Your task to perform on an android device: Open Google Maps and go to "Timeline" Image 0: 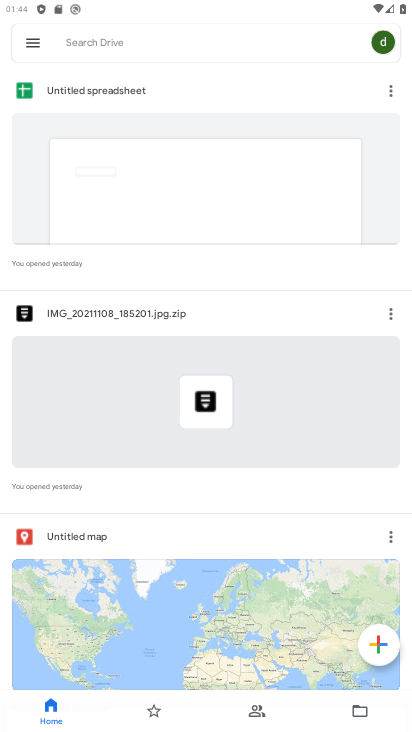
Step 0: press home button
Your task to perform on an android device: Open Google Maps and go to "Timeline" Image 1: 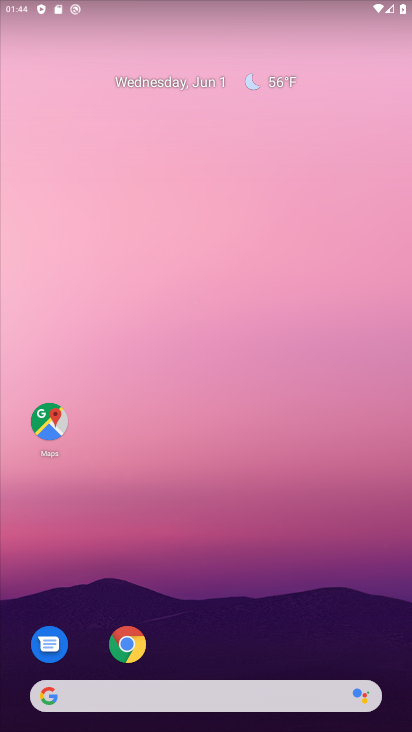
Step 1: click (39, 429)
Your task to perform on an android device: Open Google Maps and go to "Timeline" Image 2: 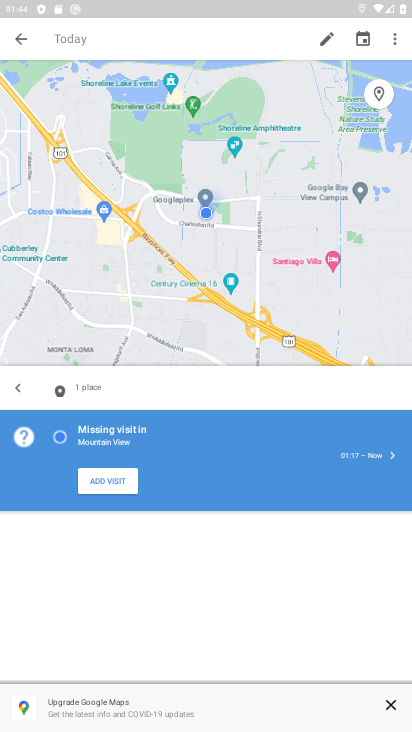
Step 2: click (16, 39)
Your task to perform on an android device: Open Google Maps and go to "Timeline" Image 3: 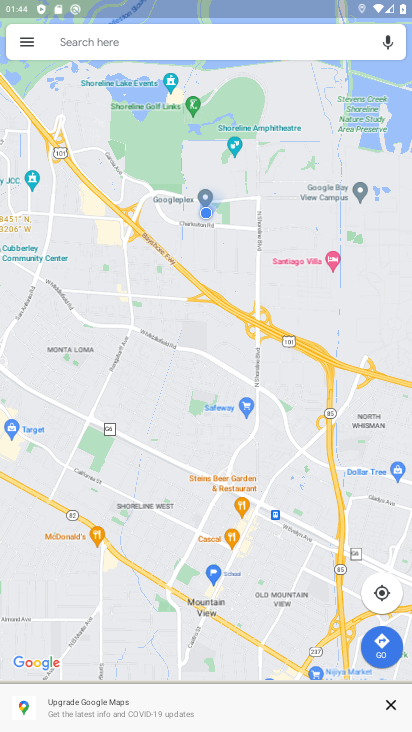
Step 3: click (30, 43)
Your task to perform on an android device: Open Google Maps and go to "Timeline" Image 4: 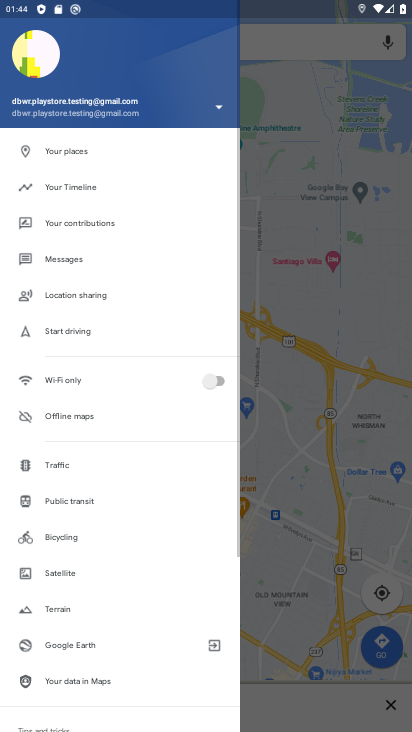
Step 4: click (69, 193)
Your task to perform on an android device: Open Google Maps and go to "Timeline" Image 5: 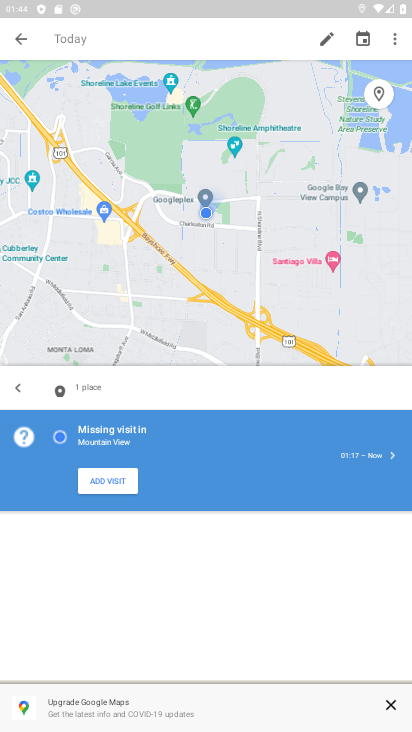
Step 5: task complete